Your task to perform on an android device: Open settings Image 0: 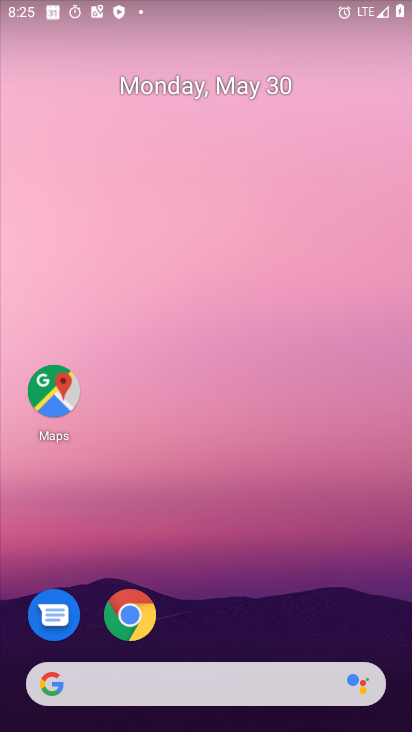
Step 0: drag from (224, 541) to (228, 116)
Your task to perform on an android device: Open settings Image 1: 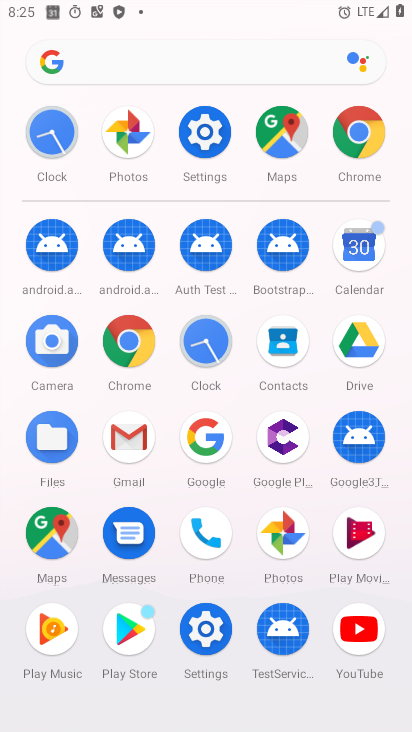
Step 1: click (203, 143)
Your task to perform on an android device: Open settings Image 2: 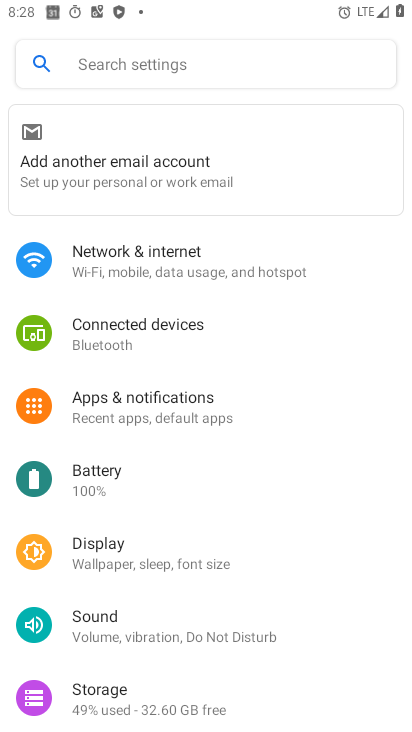
Step 2: task complete